Your task to perform on an android device: turn off airplane mode Image 0: 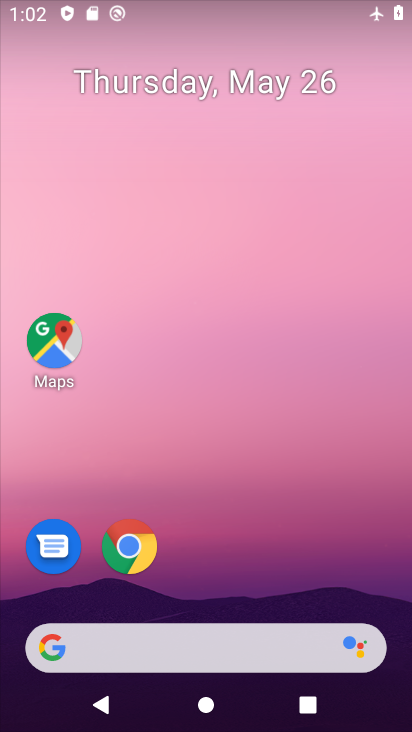
Step 0: drag from (289, 559) to (209, 57)
Your task to perform on an android device: turn off airplane mode Image 1: 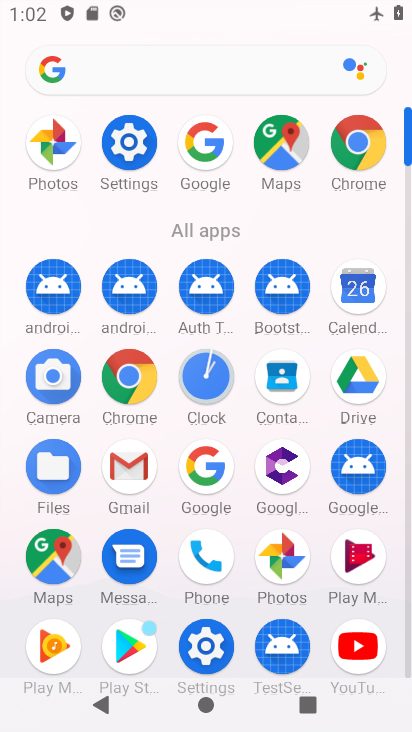
Step 1: click (148, 165)
Your task to perform on an android device: turn off airplane mode Image 2: 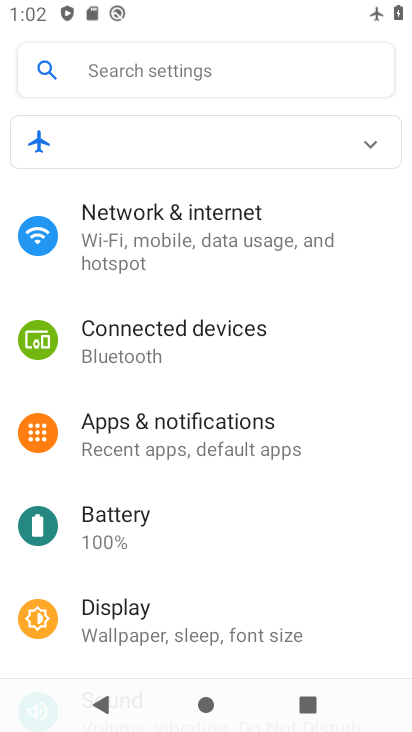
Step 2: click (212, 241)
Your task to perform on an android device: turn off airplane mode Image 3: 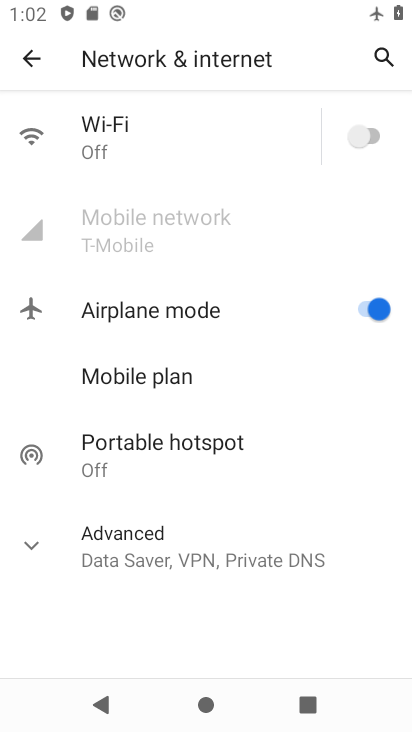
Step 3: click (224, 383)
Your task to perform on an android device: turn off airplane mode Image 4: 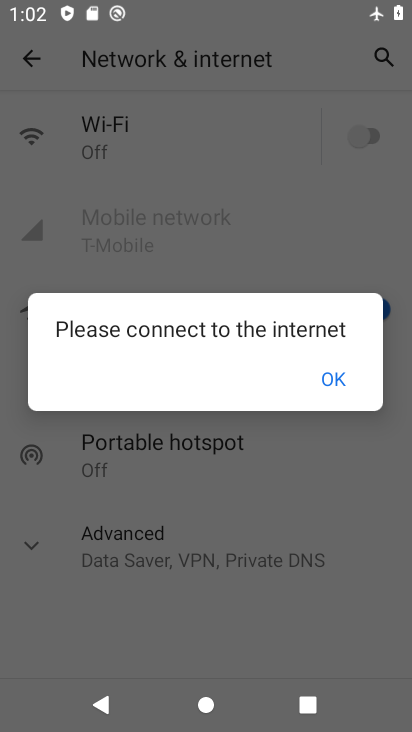
Step 4: click (329, 370)
Your task to perform on an android device: turn off airplane mode Image 5: 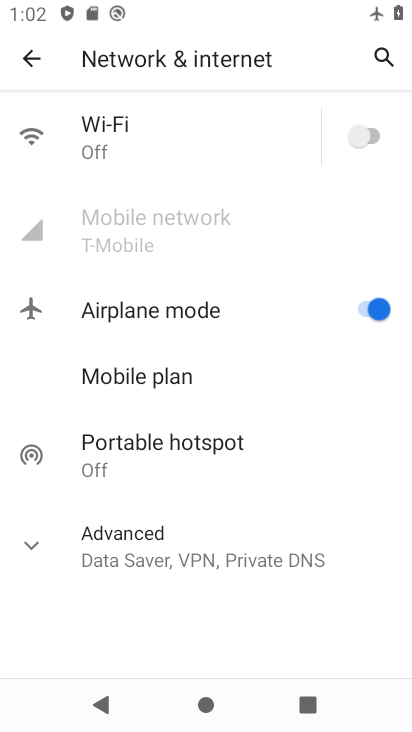
Step 5: click (380, 315)
Your task to perform on an android device: turn off airplane mode Image 6: 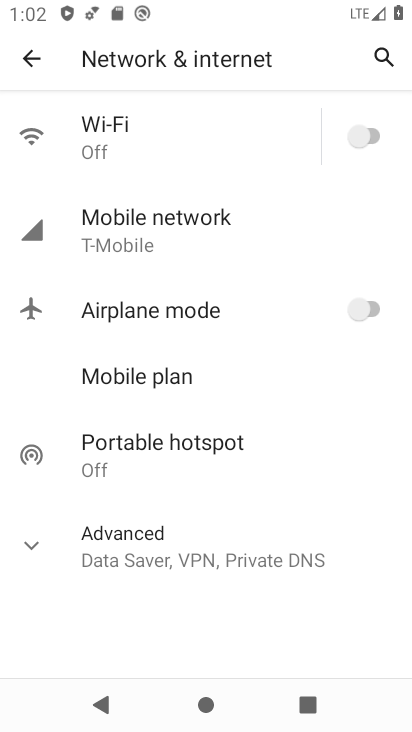
Step 6: task complete